Your task to perform on an android device: Go to CNN.com Image 0: 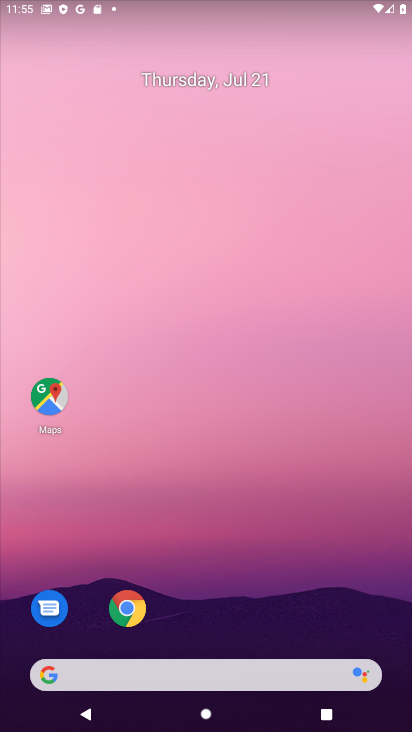
Step 0: click (124, 604)
Your task to perform on an android device: Go to CNN.com Image 1: 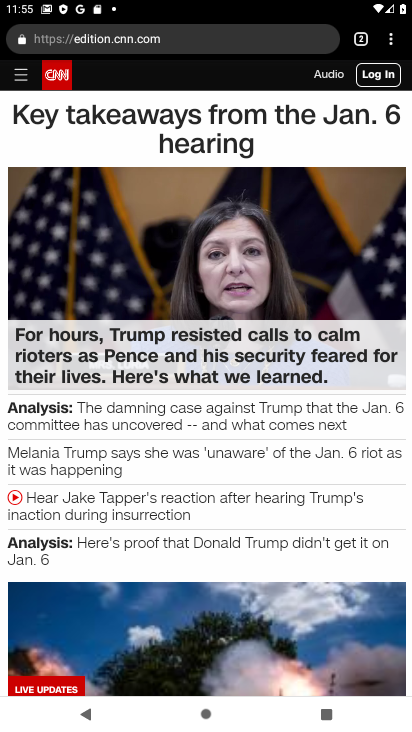
Step 1: task complete